Your task to perform on an android device: Empty the shopping cart on target. Image 0: 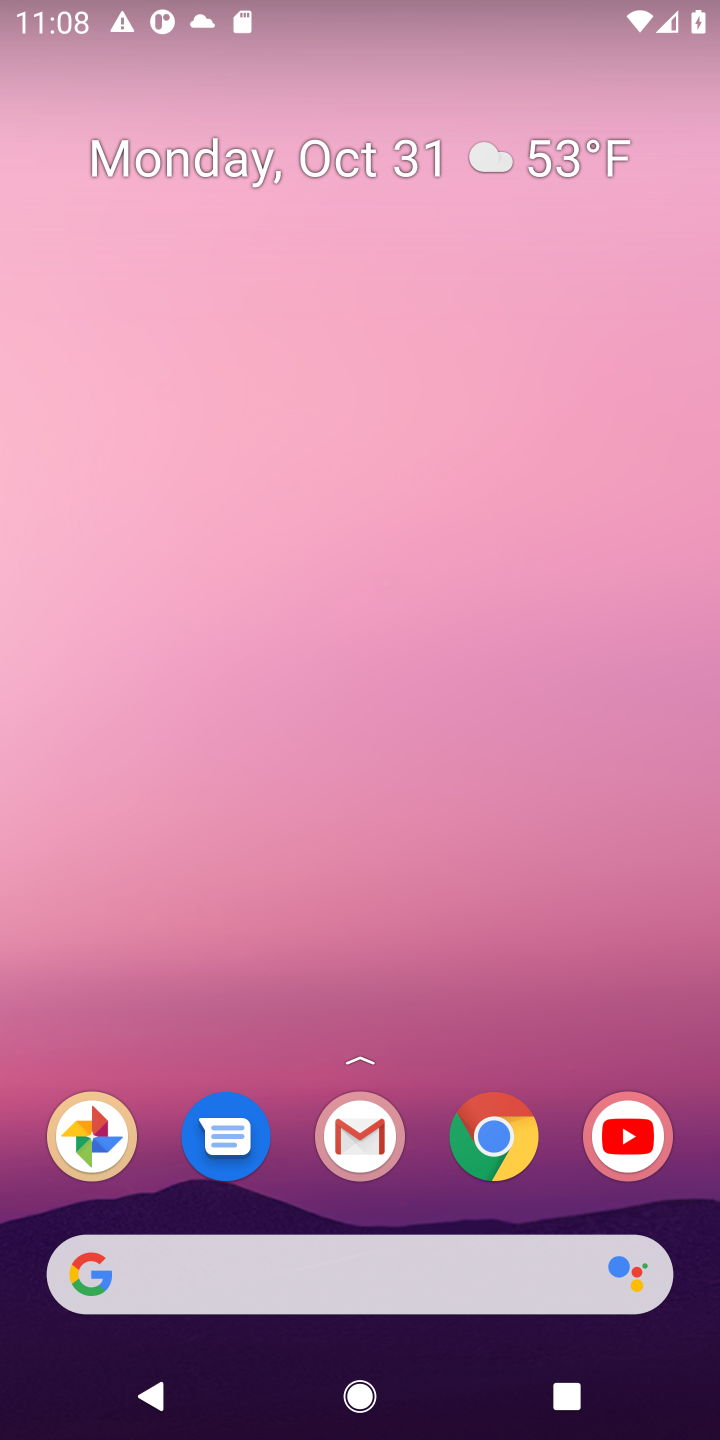
Step 0: press home button
Your task to perform on an android device: Empty the shopping cart on target. Image 1: 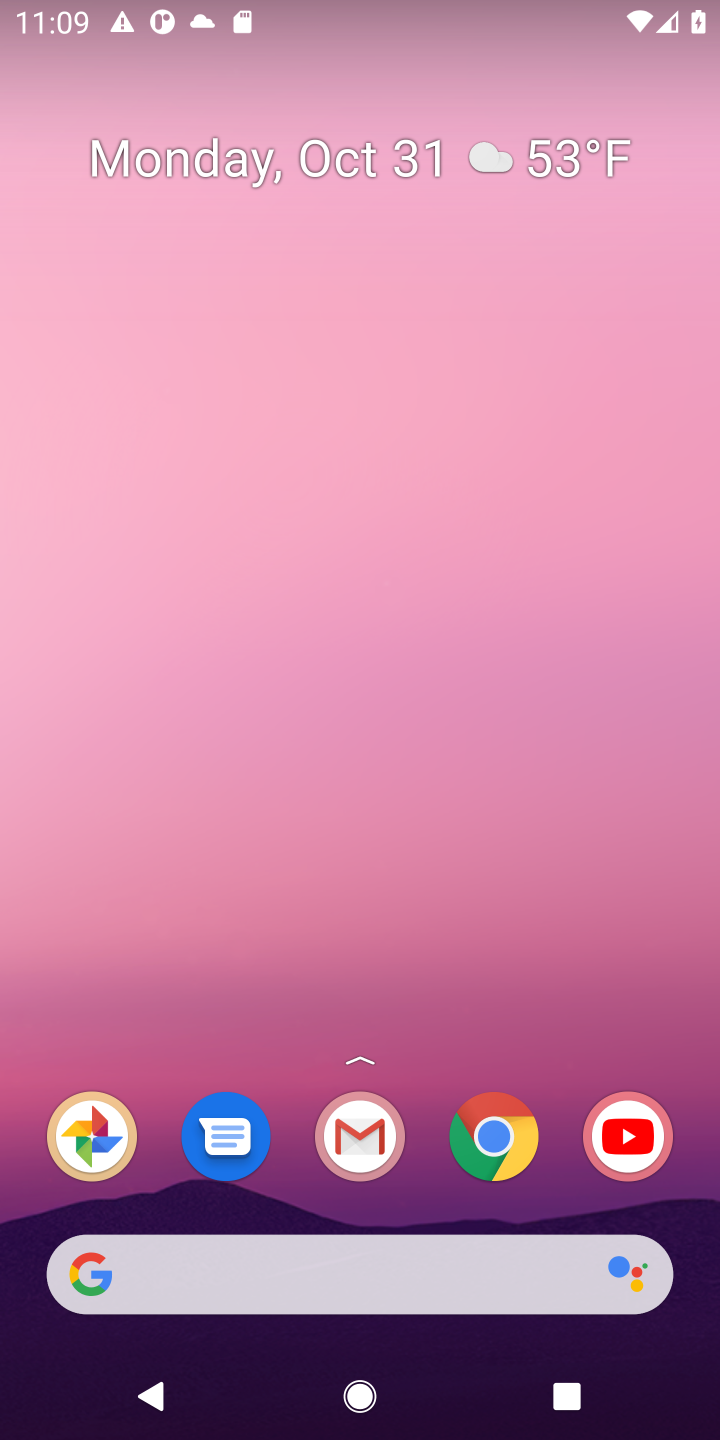
Step 1: click (135, 1258)
Your task to perform on an android device: Empty the shopping cart on target. Image 2: 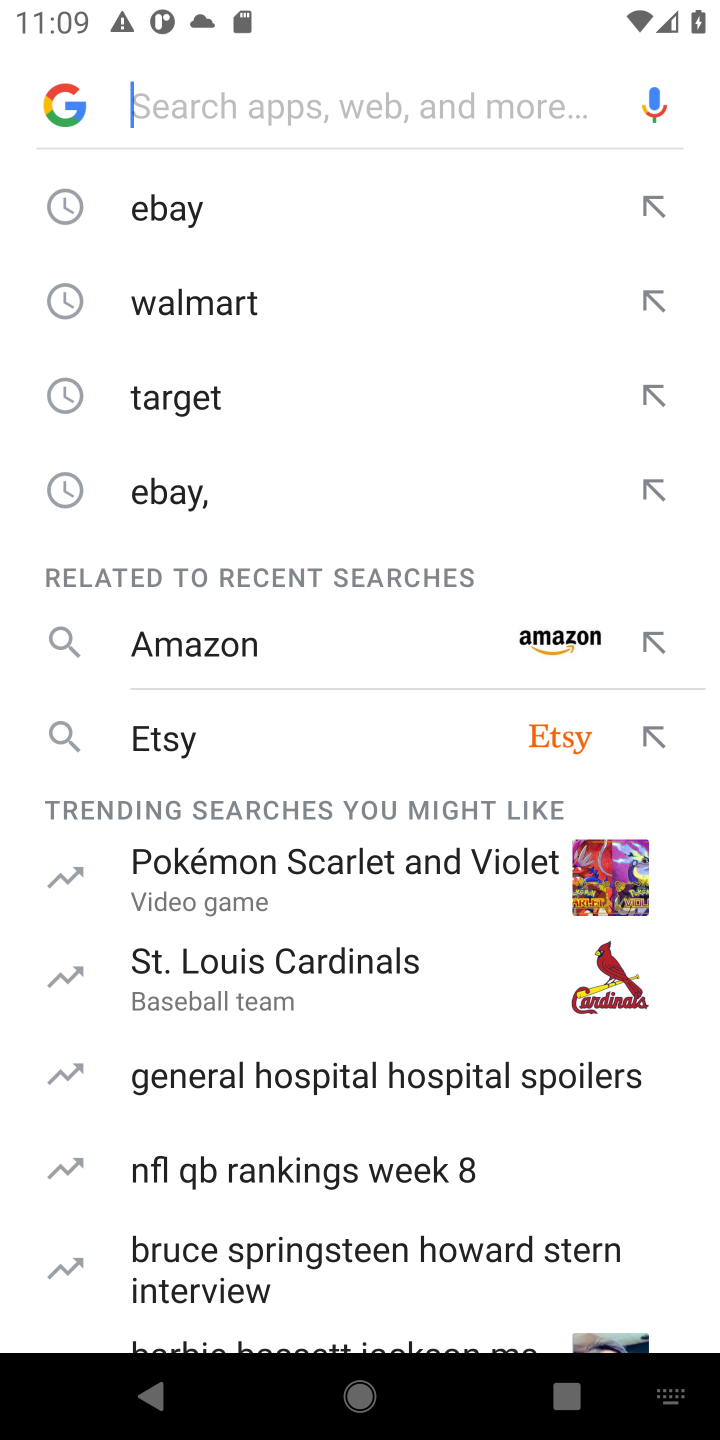
Step 2: type "target."
Your task to perform on an android device: Empty the shopping cart on target. Image 3: 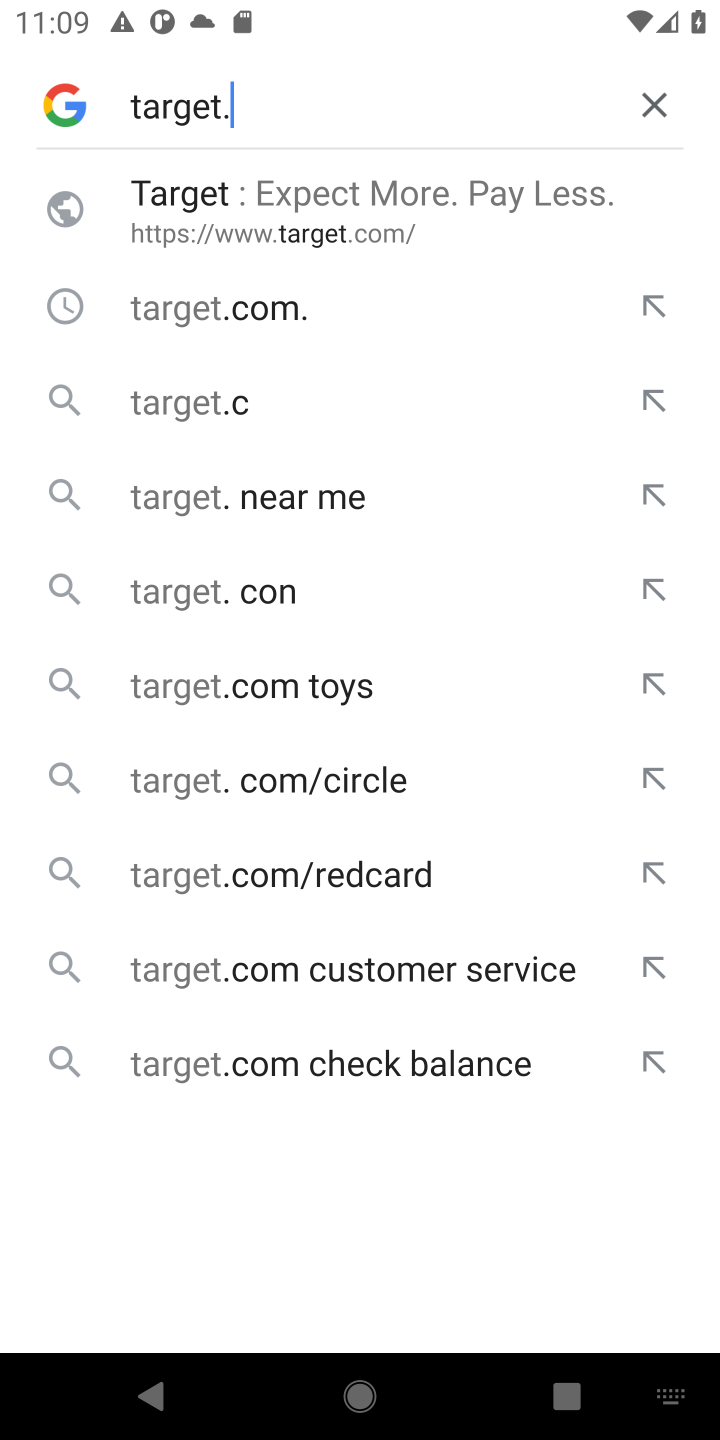
Step 3: press enter
Your task to perform on an android device: Empty the shopping cart on target. Image 4: 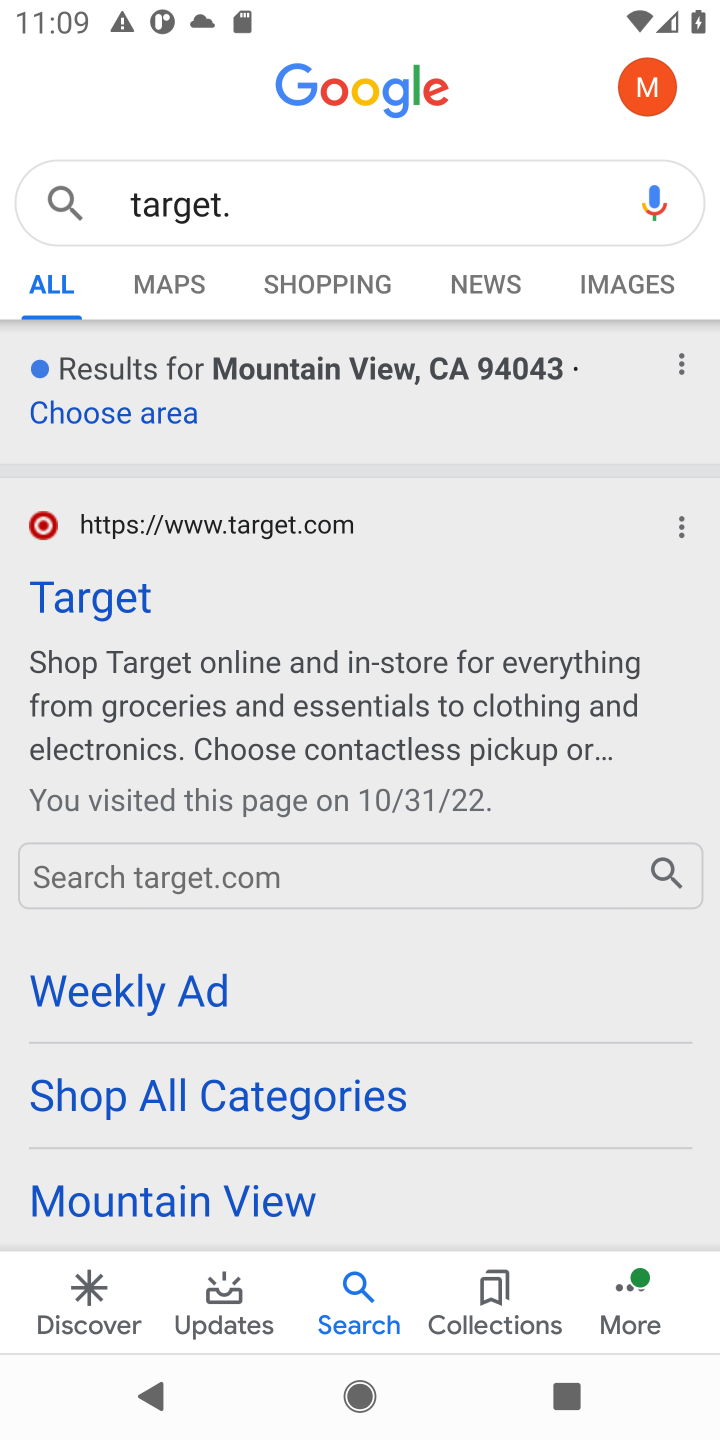
Step 4: click (91, 602)
Your task to perform on an android device: Empty the shopping cart on target. Image 5: 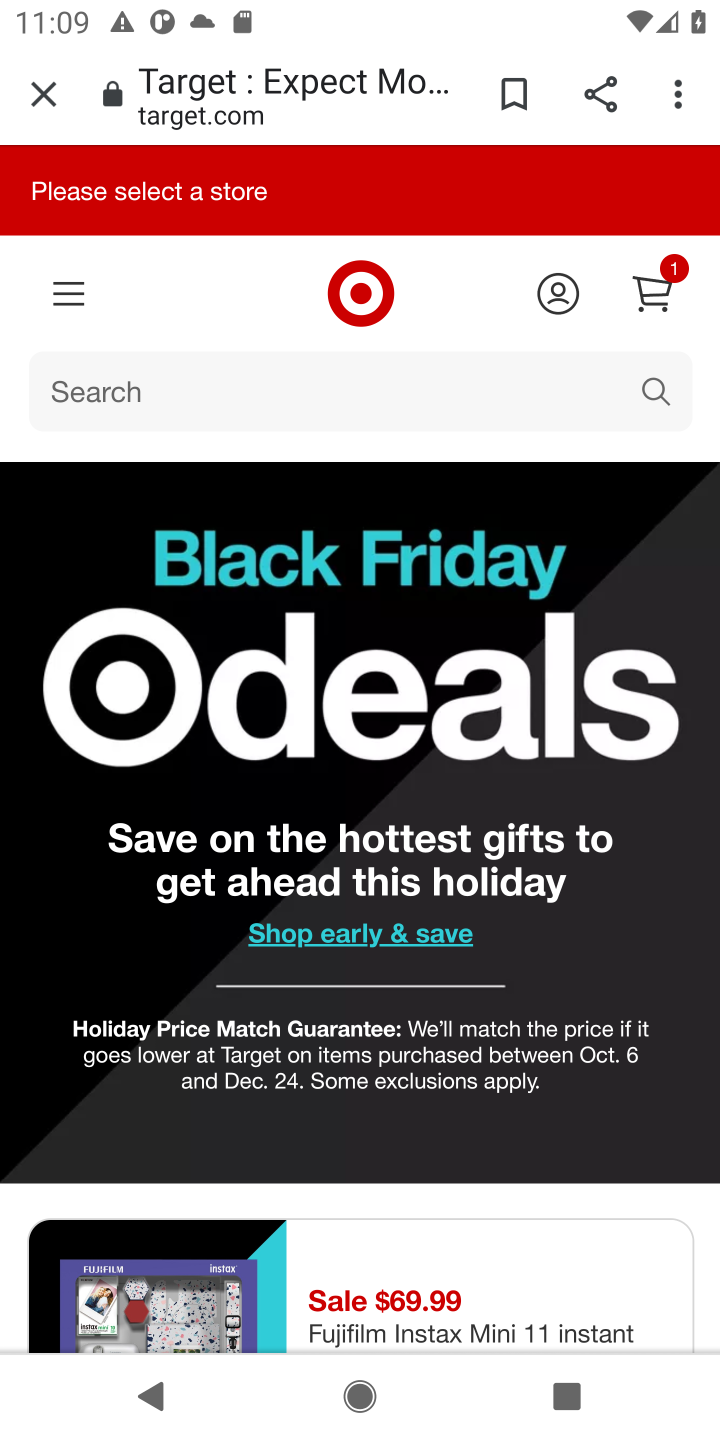
Step 5: click (655, 278)
Your task to perform on an android device: Empty the shopping cart on target. Image 6: 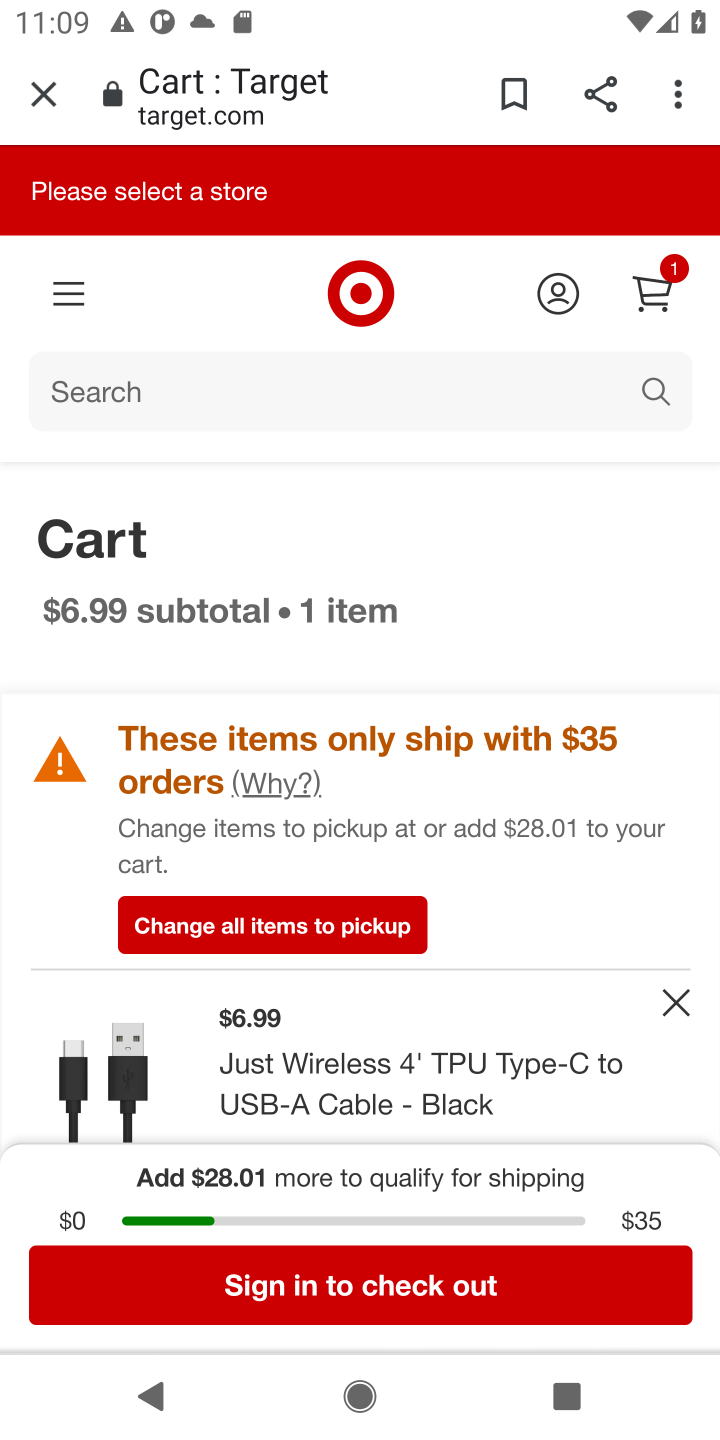
Step 6: click (670, 1010)
Your task to perform on an android device: Empty the shopping cart on target. Image 7: 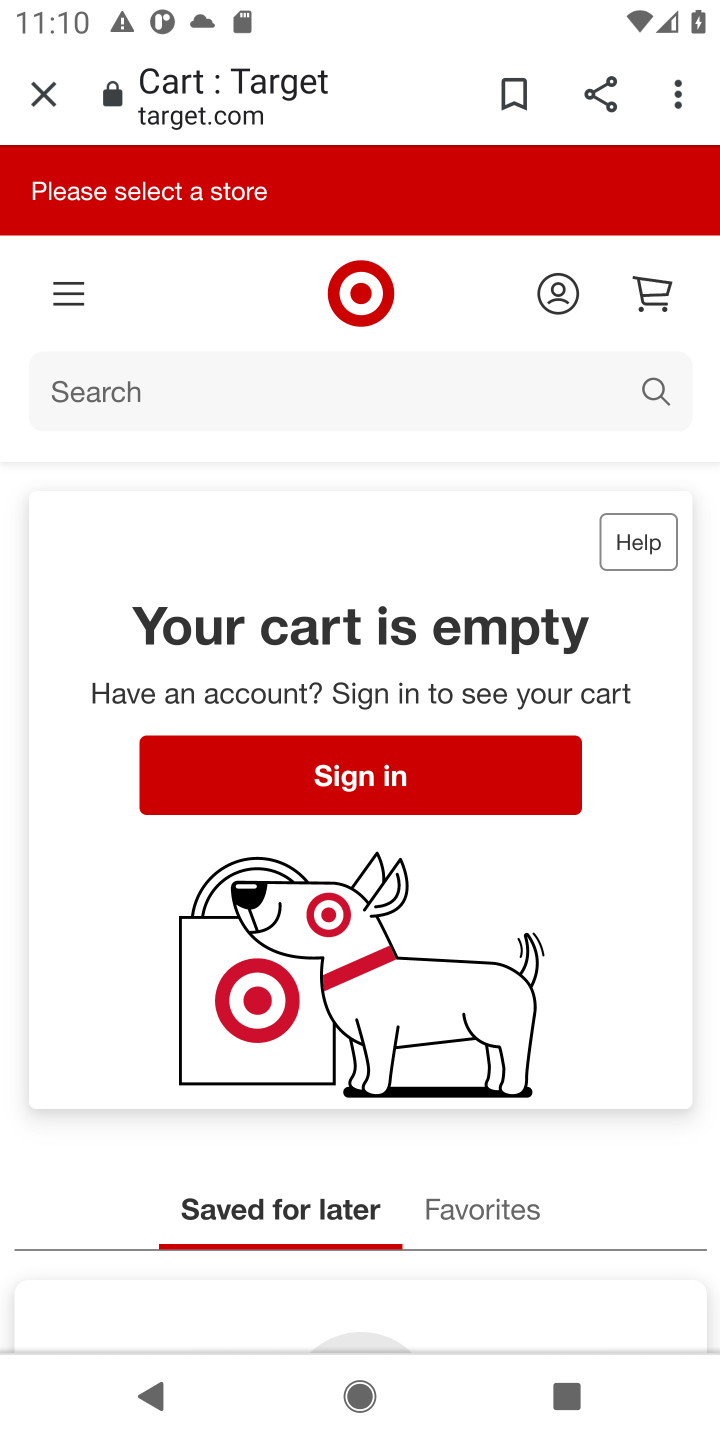
Step 7: task complete